Your task to perform on an android device: Go to ESPN.com Image 0: 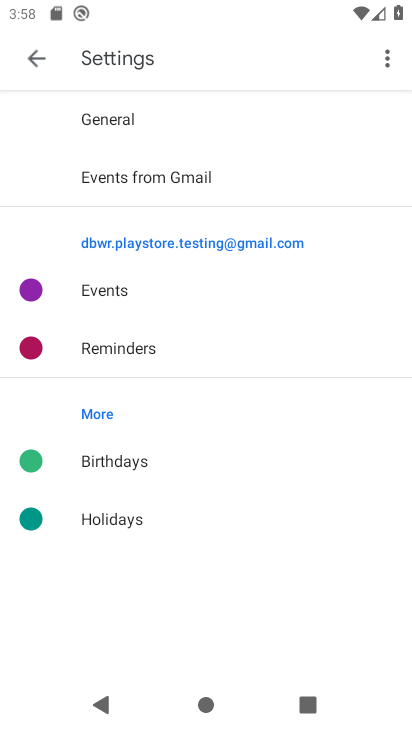
Step 0: press home button
Your task to perform on an android device: Go to ESPN.com Image 1: 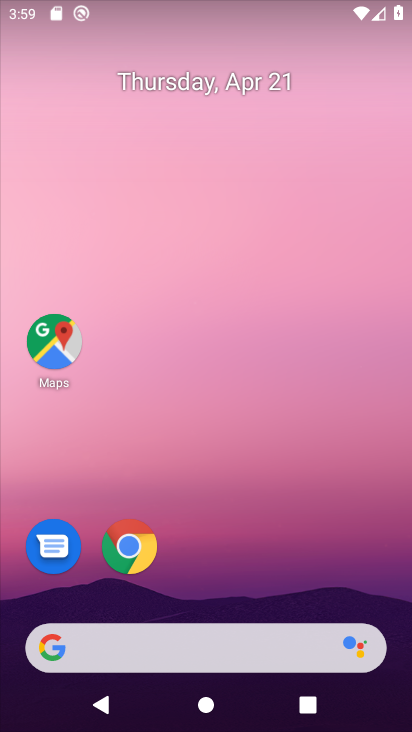
Step 1: click (201, 657)
Your task to perform on an android device: Go to ESPN.com Image 2: 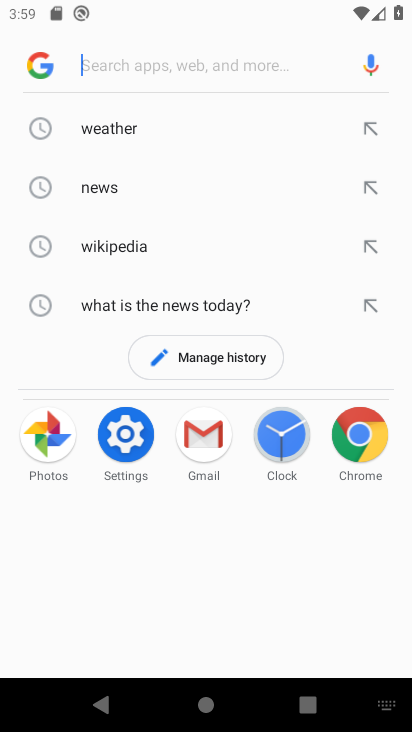
Step 2: type "espn.com"
Your task to perform on an android device: Go to ESPN.com Image 3: 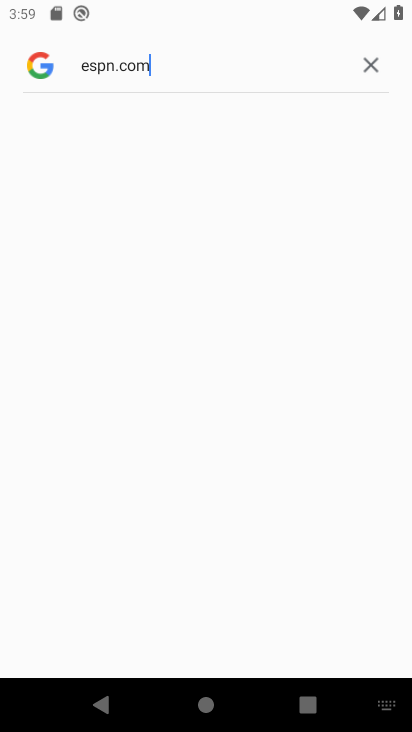
Step 3: click (221, 59)
Your task to perform on an android device: Go to ESPN.com Image 4: 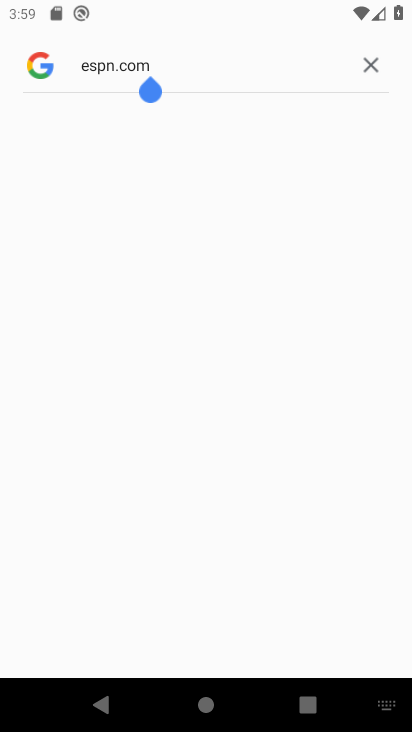
Step 4: click (36, 76)
Your task to perform on an android device: Go to ESPN.com Image 5: 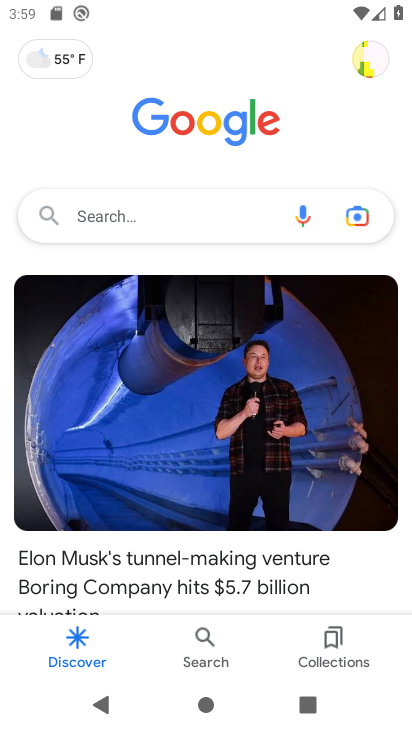
Step 5: click (184, 206)
Your task to perform on an android device: Go to ESPN.com Image 6: 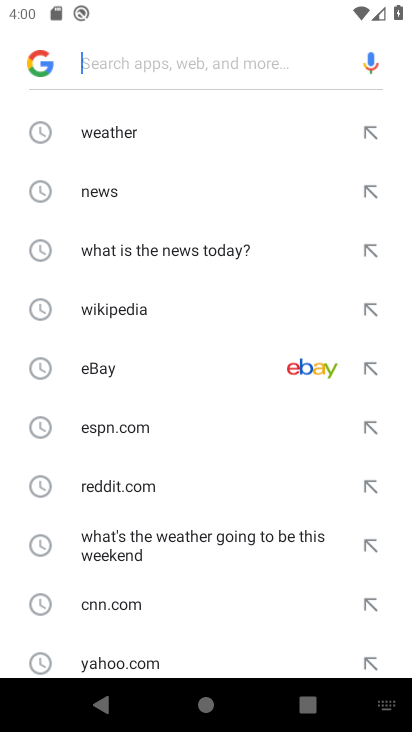
Step 6: click (104, 442)
Your task to perform on an android device: Go to ESPN.com Image 7: 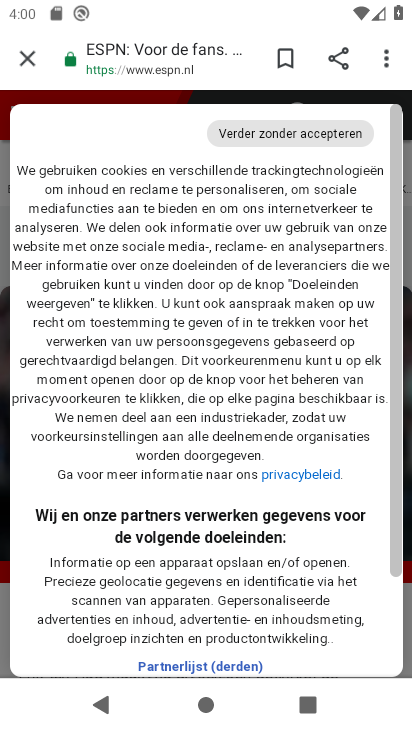
Step 7: task complete